Your task to perform on an android device: Toggle the flashlight Image 0: 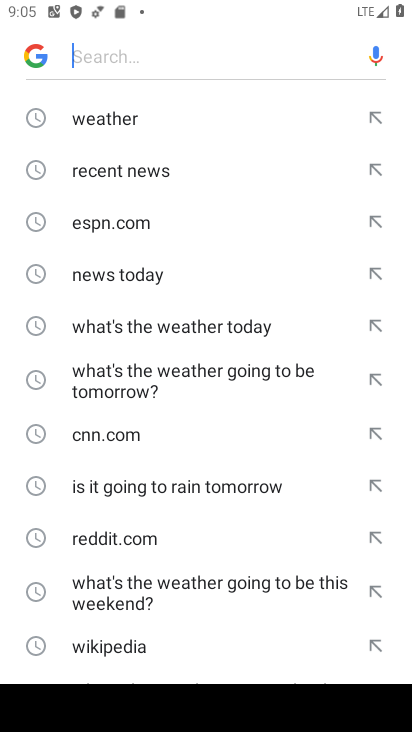
Step 0: press home button
Your task to perform on an android device: Toggle the flashlight Image 1: 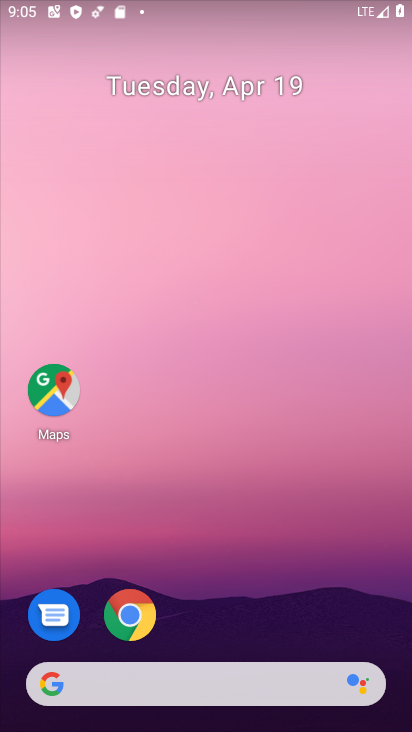
Step 1: drag from (215, 4) to (255, 532)
Your task to perform on an android device: Toggle the flashlight Image 2: 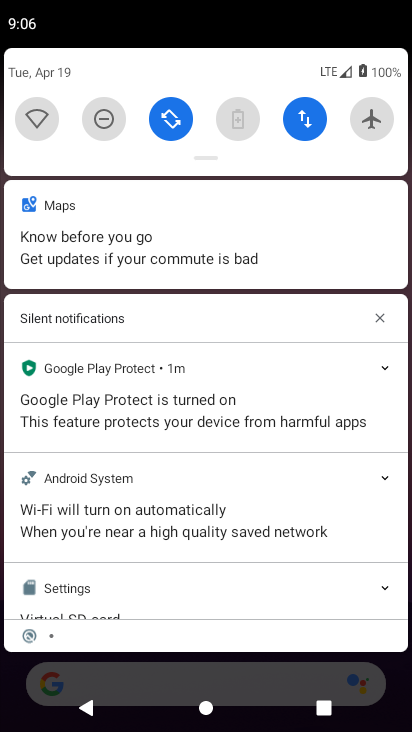
Step 2: drag from (208, 358) to (240, 647)
Your task to perform on an android device: Toggle the flashlight Image 3: 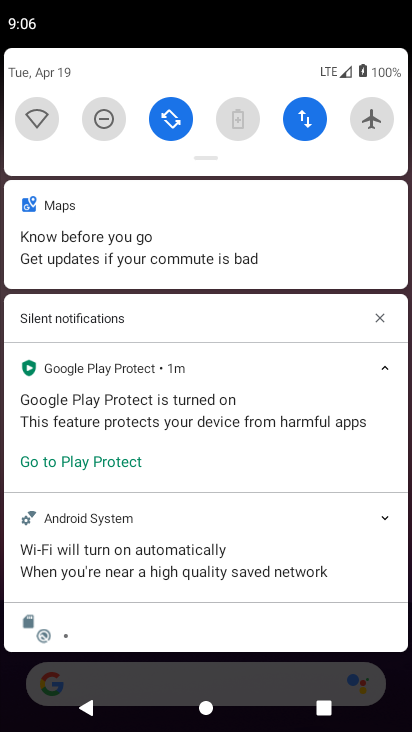
Step 3: drag from (237, 83) to (275, 533)
Your task to perform on an android device: Toggle the flashlight Image 4: 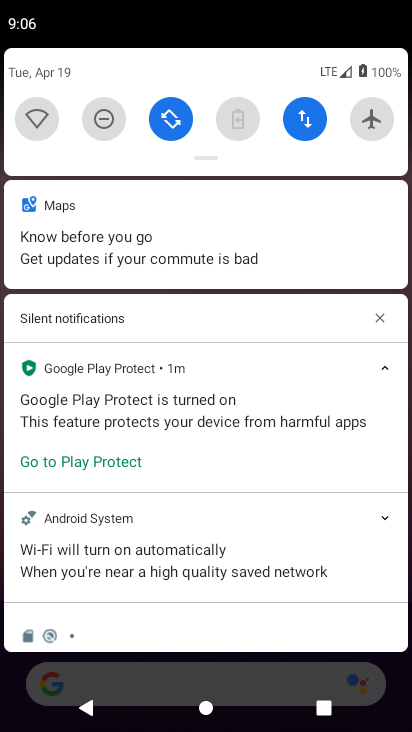
Step 4: drag from (244, 88) to (222, 730)
Your task to perform on an android device: Toggle the flashlight Image 5: 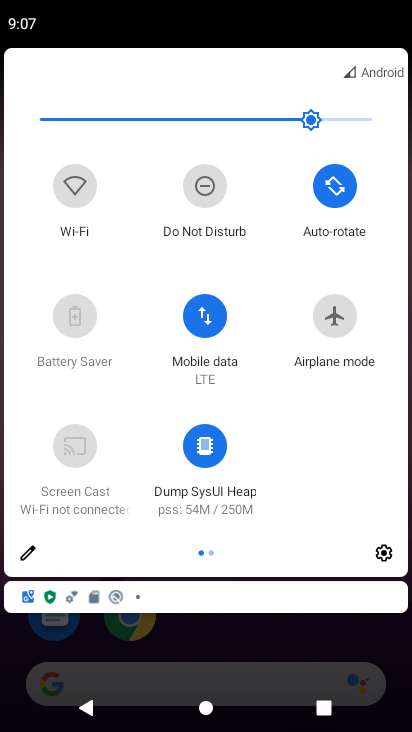
Step 5: click (390, 549)
Your task to perform on an android device: Toggle the flashlight Image 6: 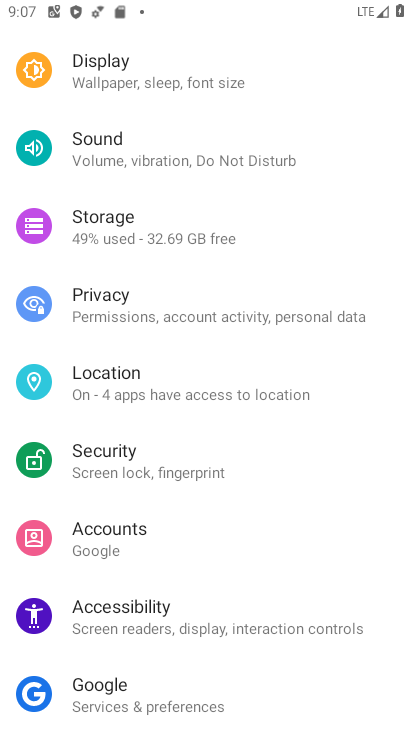
Step 6: task complete